Your task to perform on an android device: Clear all items from cart on ebay. Add logitech g910 to the cart on ebay, then select checkout. Image 0: 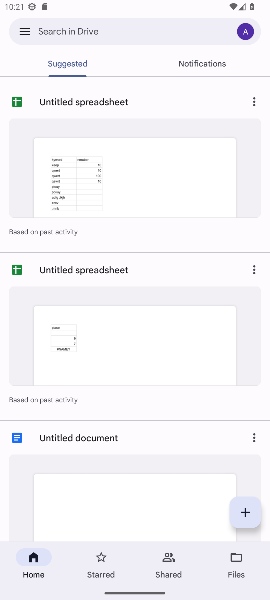
Step 0: press home button
Your task to perform on an android device: Clear all items from cart on ebay. Add logitech g910 to the cart on ebay, then select checkout. Image 1: 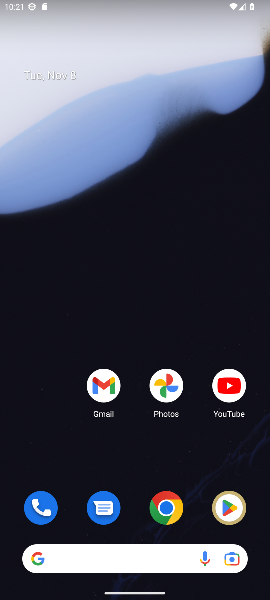
Step 1: click (167, 500)
Your task to perform on an android device: Clear all items from cart on ebay. Add logitech g910 to the cart on ebay, then select checkout. Image 2: 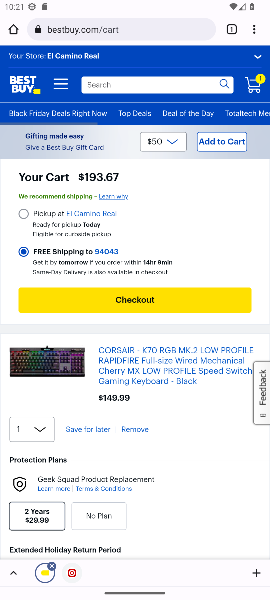
Step 2: click (72, 31)
Your task to perform on an android device: Clear all items from cart on ebay. Add logitech g910 to the cart on ebay, then select checkout. Image 3: 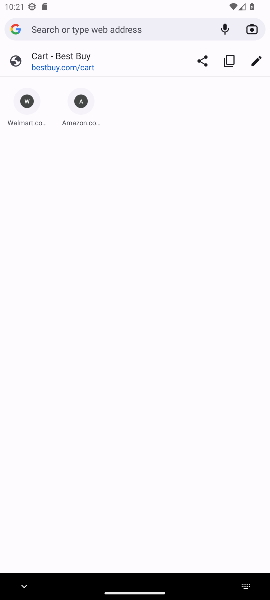
Step 3: type "ebay"
Your task to perform on an android device: Clear all items from cart on ebay. Add logitech g910 to the cart on ebay, then select checkout. Image 4: 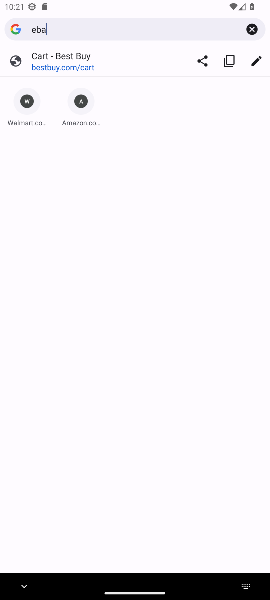
Step 4: type ""
Your task to perform on an android device: Clear all items from cart on ebay. Add logitech g910 to the cart on ebay, then select checkout. Image 5: 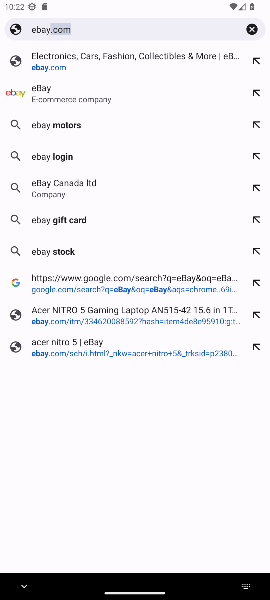
Step 5: click (46, 98)
Your task to perform on an android device: Clear all items from cart on ebay. Add logitech g910 to the cart on ebay, then select checkout. Image 6: 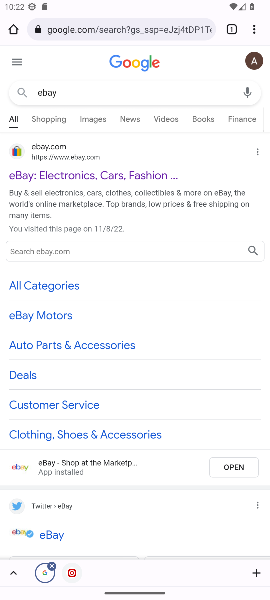
Step 6: click (56, 176)
Your task to perform on an android device: Clear all items from cart on ebay. Add logitech g910 to the cart on ebay, then select checkout. Image 7: 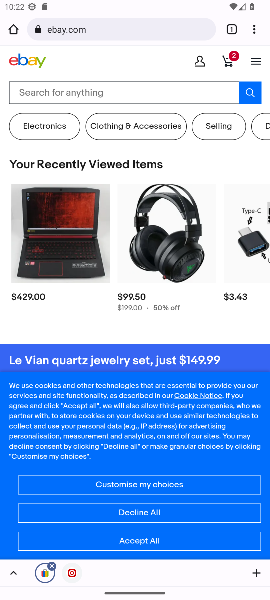
Step 7: click (103, 87)
Your task to perform on an android device: Clear all items from cart on ebay. Add logitech g910 to the cart on ebay, then select checkout. Image 8: 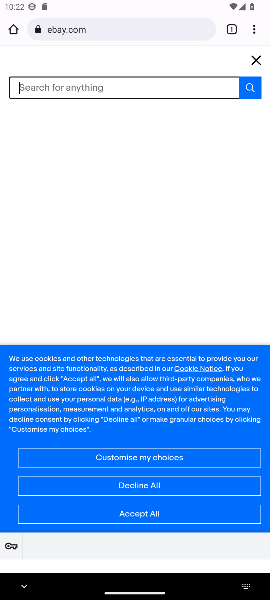
Step 8: type "logitech g910"
Your task to perform on an android device: Clear all items from cart on ebay. Add logitech g910 to the cart on ebay, then select checkout. Image 9: 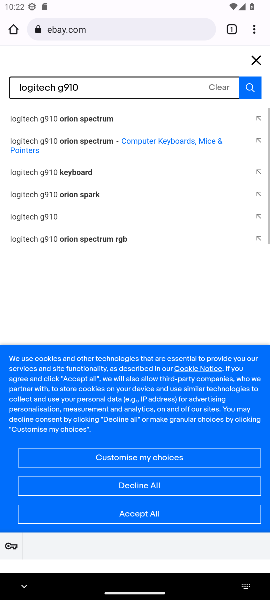
Step 9: click (45, 116)
Your task to perform on an android device: Clear all items from cart on ebay. Add logitech g910 to the cart on ebay, then select checkout. Image 10: 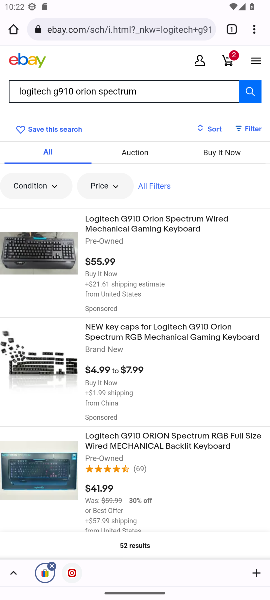
Step 10: click (129, 224)
Your task to perform on an android device: Clear all items from cart on ebay. Add logitech g910 to the cart on ebay, then select checkout. Image 11: 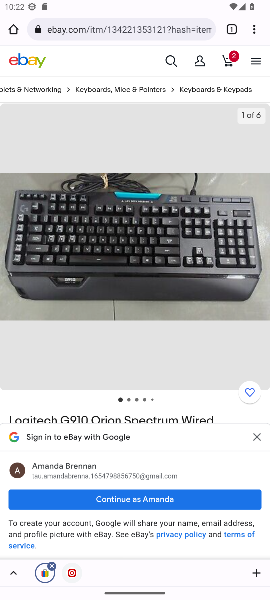
Step 11: click (255, 434)
Your task to perform on an android device: Clear all items from cart on ebay. Add logitech g910 to the cart on ebay, then select checkout. Image 12: 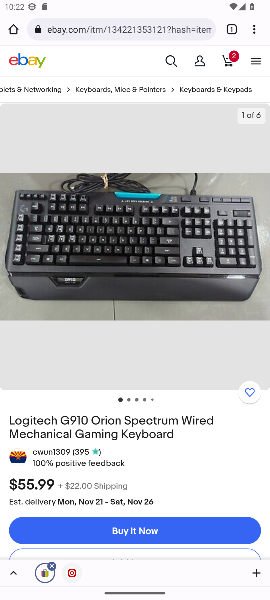
Step 12: drag from (82, 450) to (126, 167)
Your task to perform on an android device: Clear all items from cart on ebay. Add logitech g910 to the cart on ebay, then select checkout. Image 13: 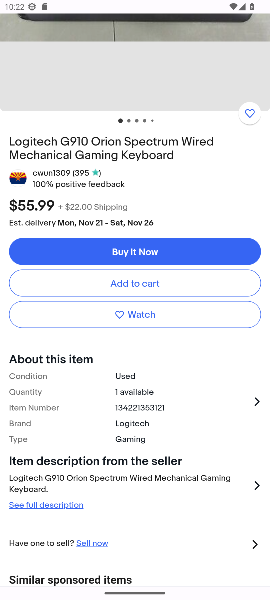
Step 13: click (140, 282)
Your task to perform on an android device: Clear all items from cart on ebay. Add logitech g910 to the cart on ebay, then select checkout. Image 14: 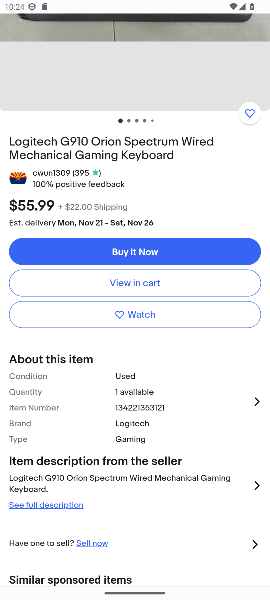
Step 14: click (128, 281)
Your task to perform on an android device: Clear all items from cart on ebay. Add logitech g910 to the cart on ebay, then select checkout. Image 15: 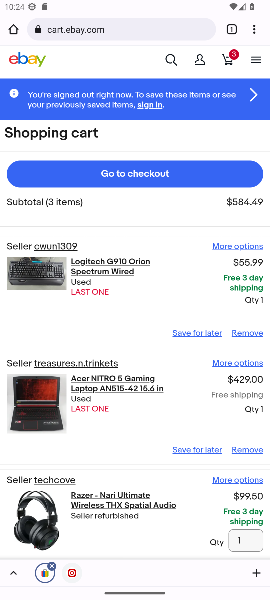
Step 15: click (137, 177)
Your task to perform on an android device: Clear all items from cart on ebay. Add logitech g910 to the cart on ebay, then select checkout. Image 16: 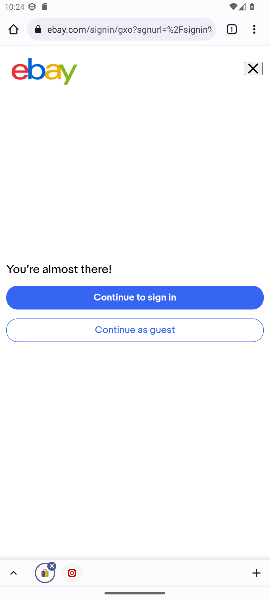
Step 16: task complete